Your task to perform on an android device: Go to ESPN.com Image 0: 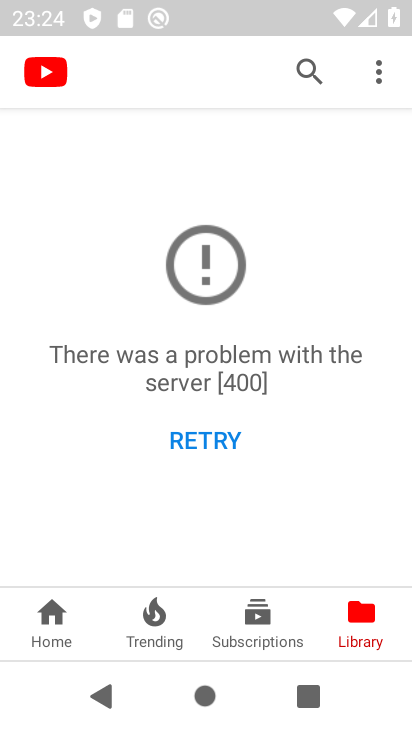
Step 0: press back button
Your task to perform on an android device: Go to ESPN.com Image 1: 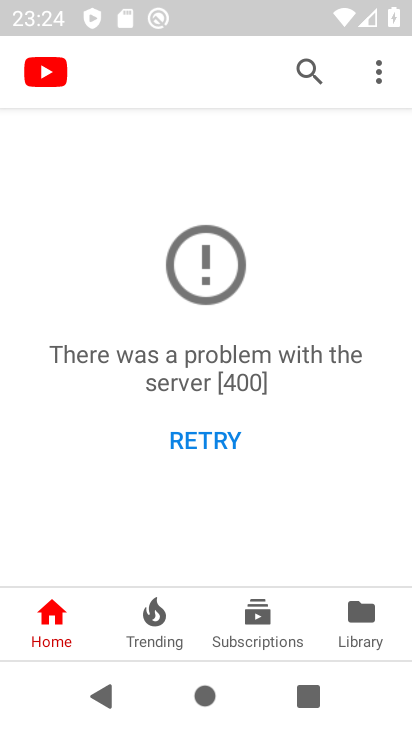
Step 1: press back button
Your task to perform on an android device: Go to ESPN.com Image 2: 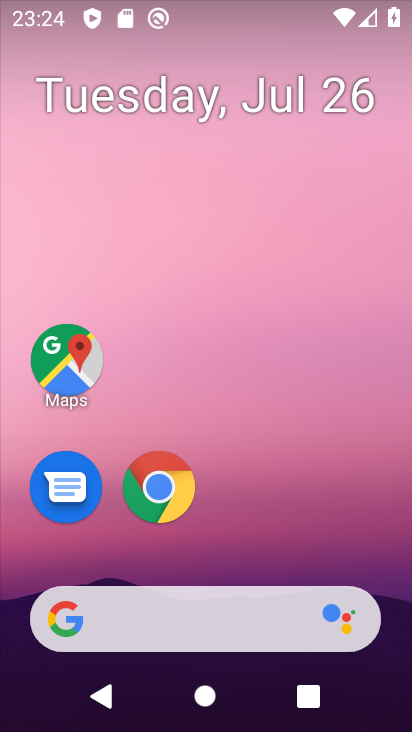
Step 2: click (167, 501)
Your task to perform on an android device: Go to ESPN.com Image 3: 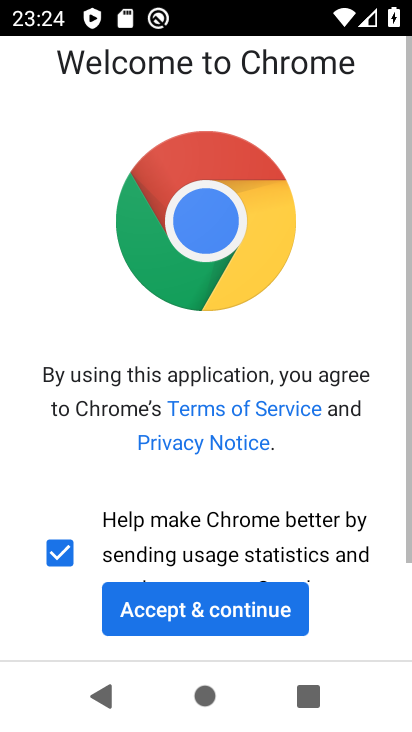
Step 3: click (205, 601)
Your task to perform on an android device: Go to ESPN.com Image 4: 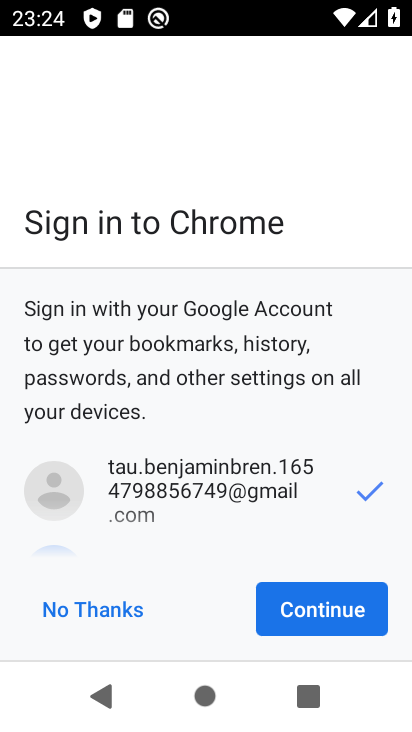
Step 4: click (346, 585)
Your task to perform on an android device: Go to ESPN.com Image 5: 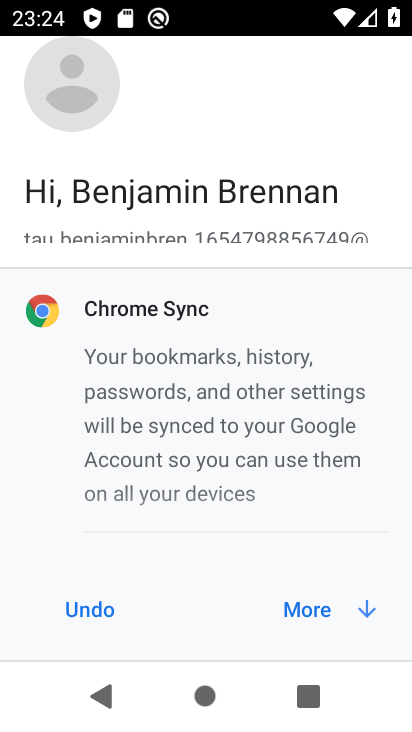
Step 5: click (323, 606)
Your task to perform on an android device: Go to ESPN.com Image 6: 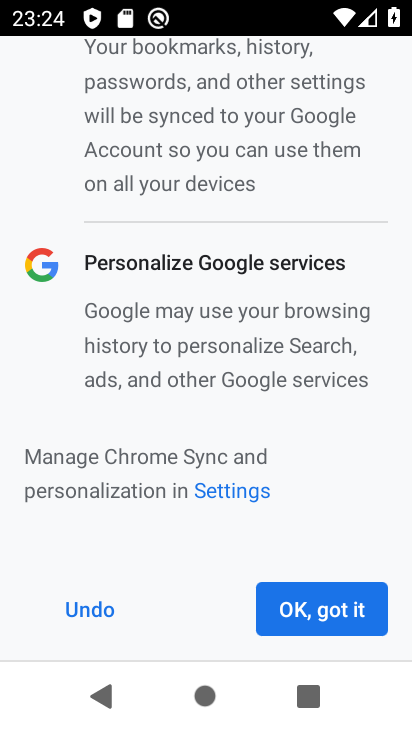
Step 6: click (311, 605)
Your task to perform on an android device: Go to ESPN.com Image 7: 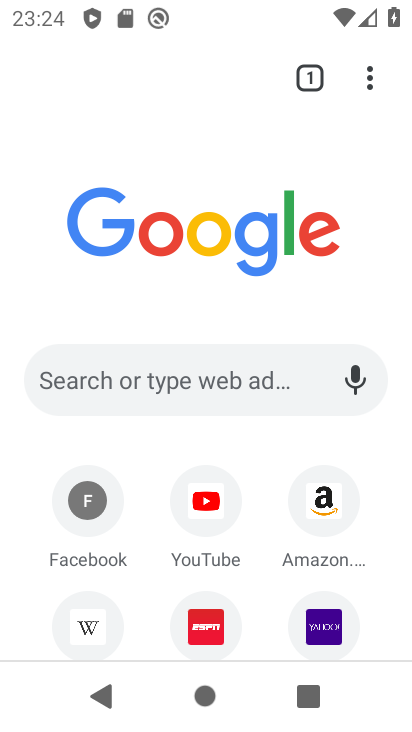
Step 7: click (207, 621)
Your task to perform on an android device: Go to ESPN.com Image 8: 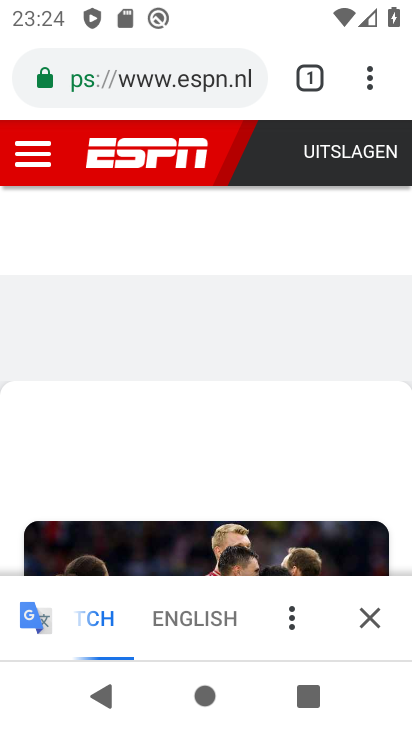
Step 8: task complete